Your task to perform on an android device: turn on the 12-hour format for clock Image 0: 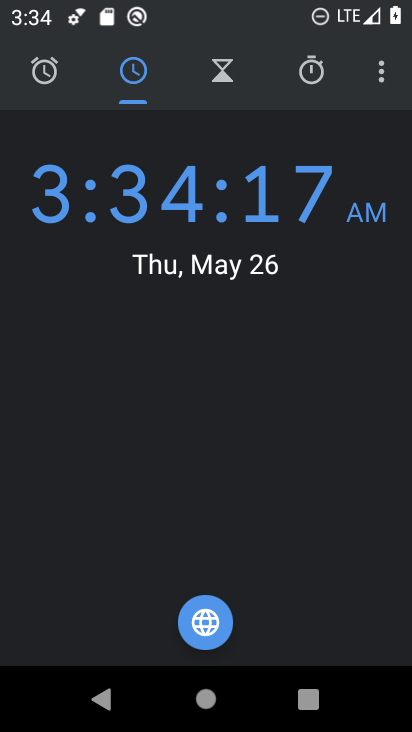
Step 0: press home button
Your task to perform on an android device: turn on the 12-hour format for clock Image 1: 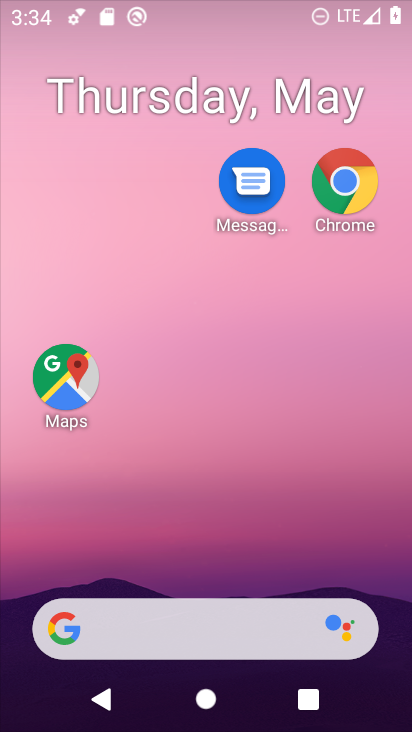
Step 1: drag from (290, 430) to (279, 64)
Your task to perform on an android device: turn on the 12-hour format for clock Image 2: 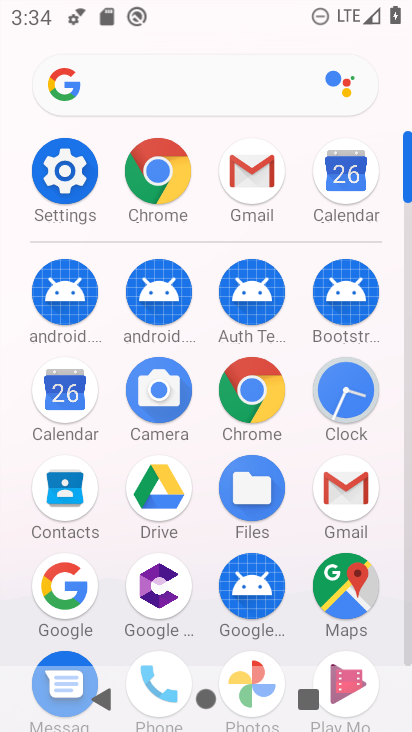
Step 2: drag from (223, 510) to (265, 340)
Your task to perform on an android device: turn on the 12-hour format for clock Image 3: 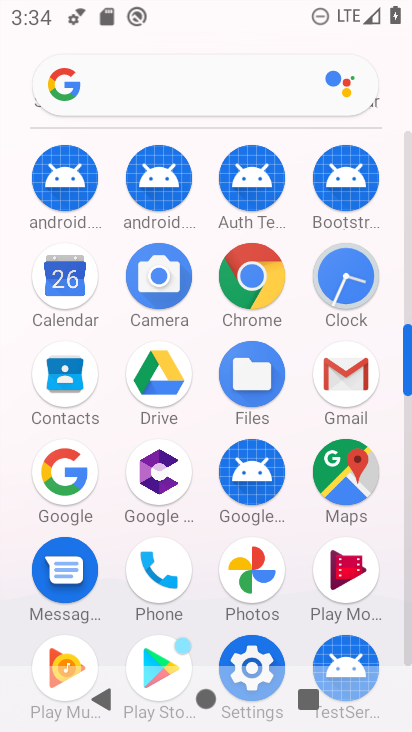
Step 3: click (353, 278)
Your task to perform on an android device: turn on the 12-hour format for clock Image 4: 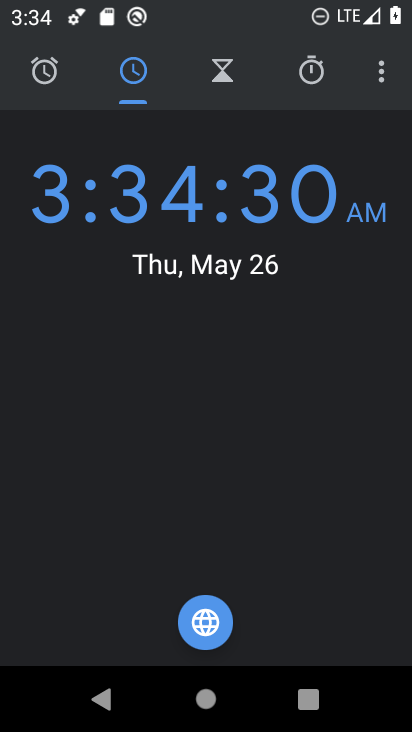
Step 4: click (377, 82)
Your task to perform on an android device: turn on the 12-hour format for clock Image 5: 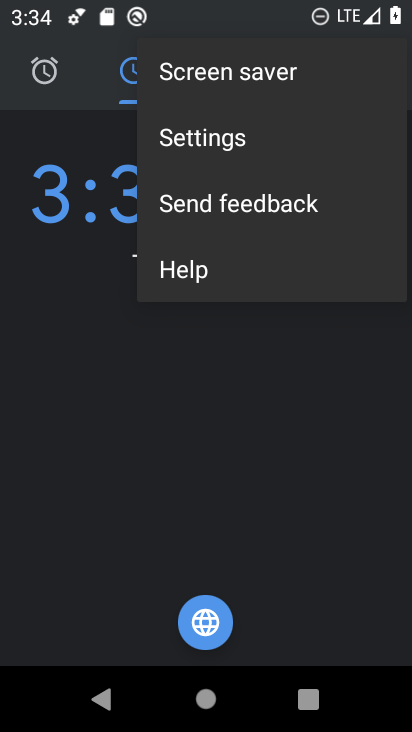
Step 5: click (215, 135)
Your task to perform on an android device: turn on the 12-hour format for clock Image 6: 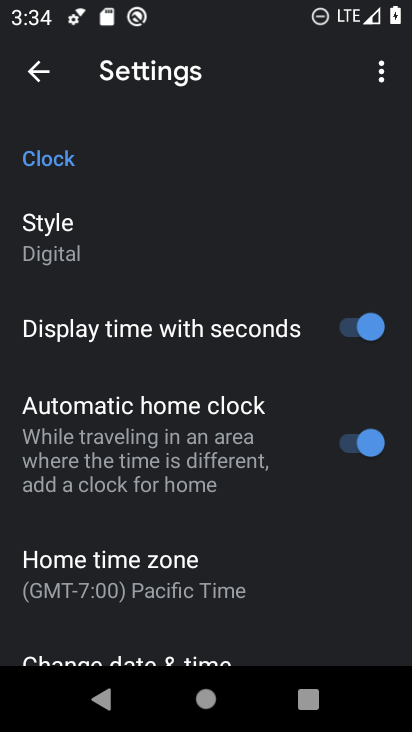
Step 6: drag from (296, 545) to (301, 188)
Your task to perform on an android device: turn on the 12-hour format for clock Image 7: 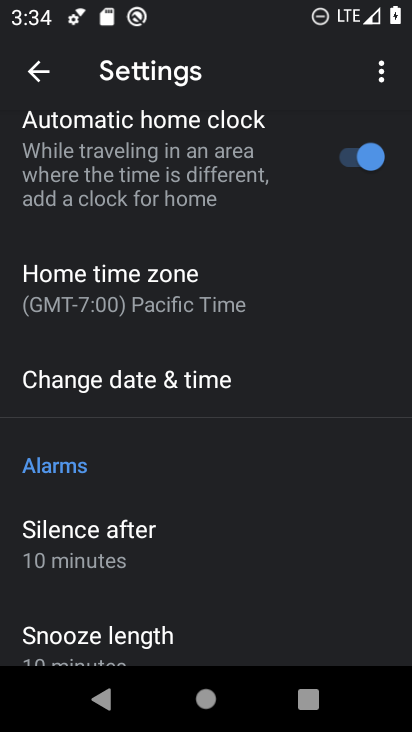
Step 7: drag from (244, 450) to (257, 207)
Your task to perform on an android device: turn on the 12-hour format for clock Image 8: 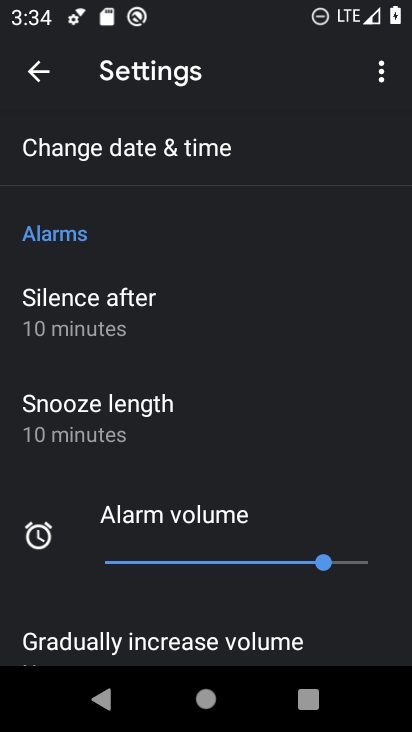
Step 8: drag from (253, 455) to (261, 209)
Your task to perform on an android device: turn on the 12-hour format for clock Image 9: 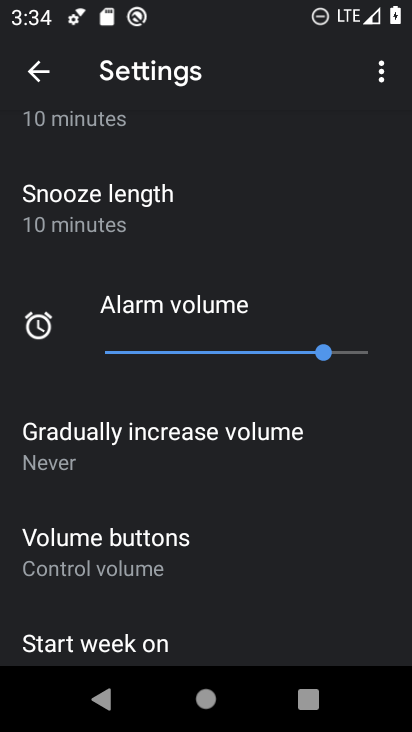
Step 9: drag from (248, 452) to (286, 187)
Your task to perform on an android device: turn on the 12-hour format for clock Image 10: 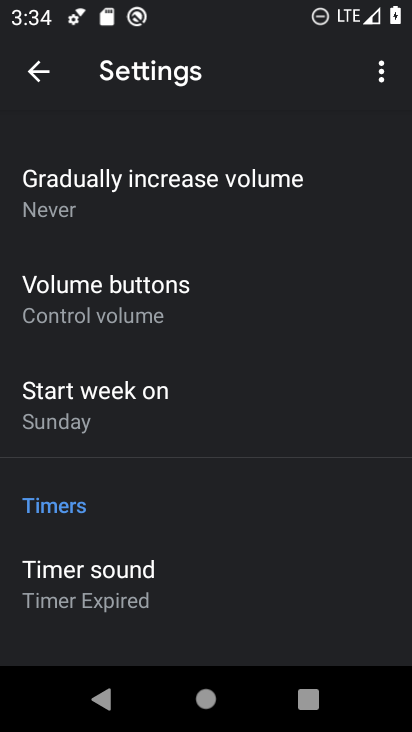
Step 10: drag from (274, 463) to (280, 241)
Your task to perform on an android device: turn on the 12-hour format for clock Image 11: 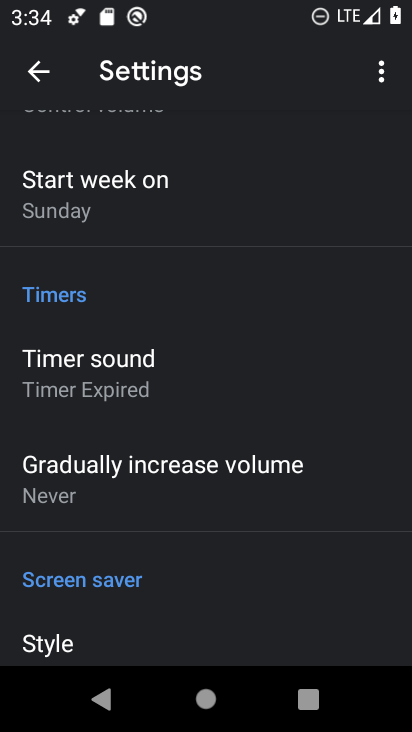
Step 11: drag from (293, 513) to (283, 168)
Your task to perform on an android device: turn on the 12-hour format for clock Image 12: 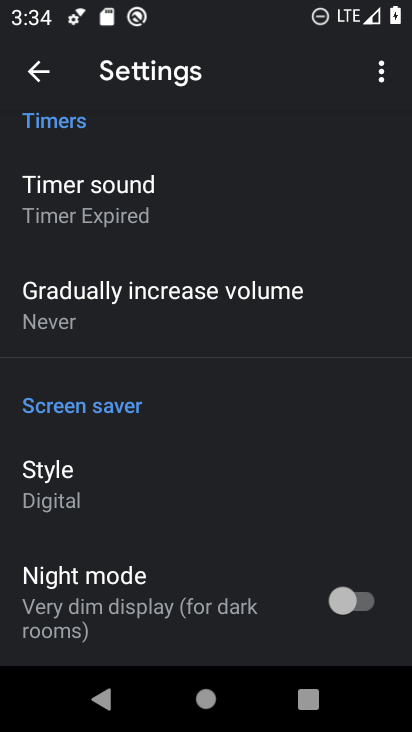
Step 12: drag from (271, 171) to (259, 597)
Your task to perform on an android device: turn on the 12-hour format for clock Image 13: 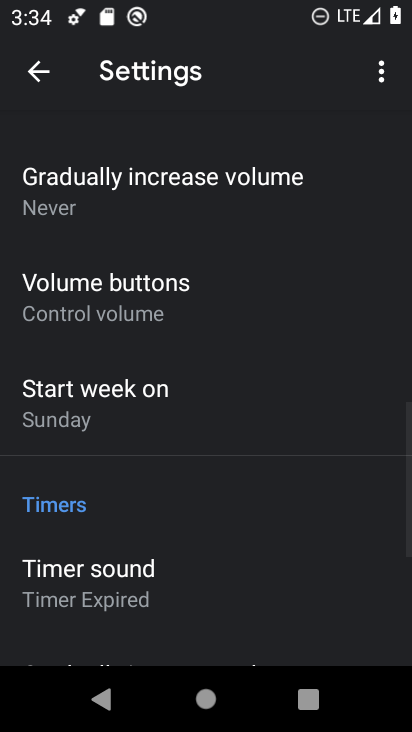
Step 13: drag from (275, 191) to (261, 500)
Your task to perform on an android device: turn on the 12-hour format for clock Image 14: 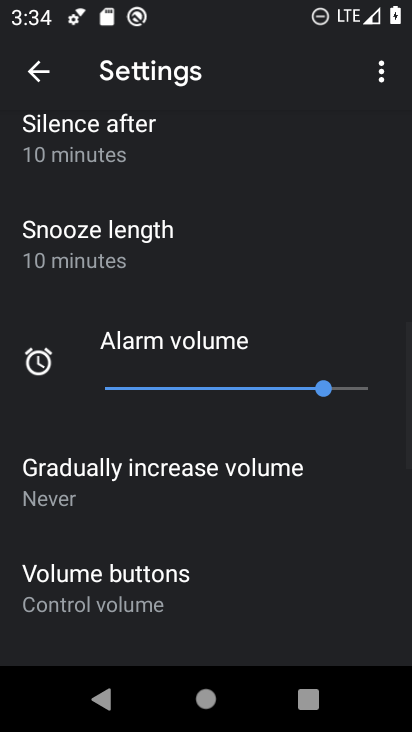
Step 14: drag from (223, 174) to (218, 420)
Your task to perform on an android device: turn on the 12-hour format for clock Image 15: 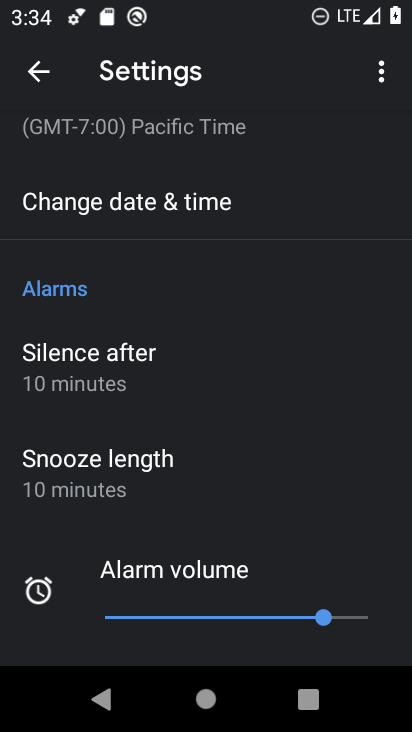
Step 15: drag from (226, 176) to (233, 372)
Your task to perform on an android device: turn on the 12-hour format for clock Image 16: 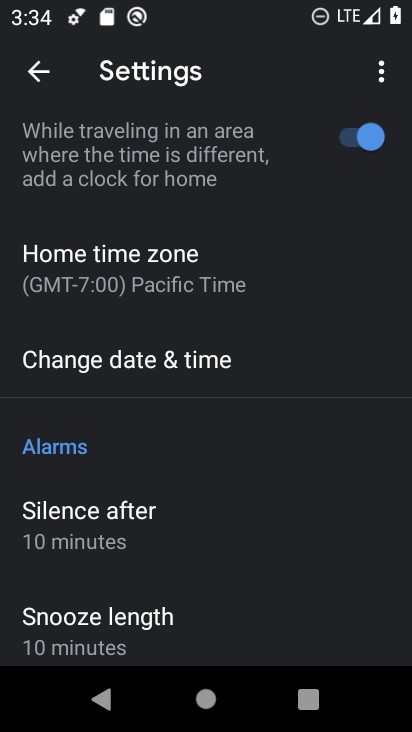
Step 16: click (200, 360)
Your task to perform on an android device: turn on the 12-hour format for clock Image 17: 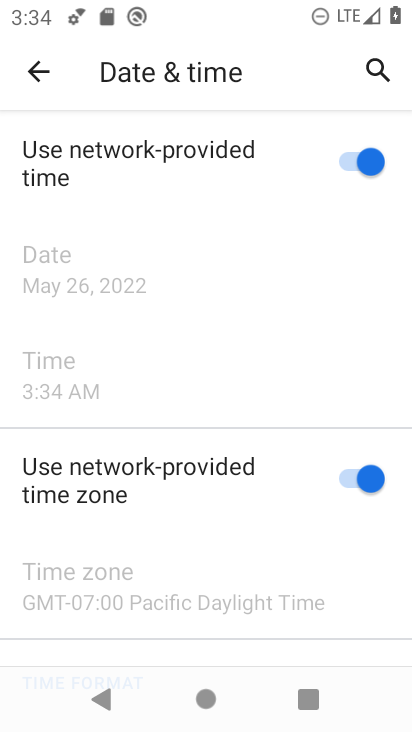
Step 17: drag from (212, 365) to (245, 113)
Your task to perform on an android device: turn on the 12-hour format for clock Image 18: 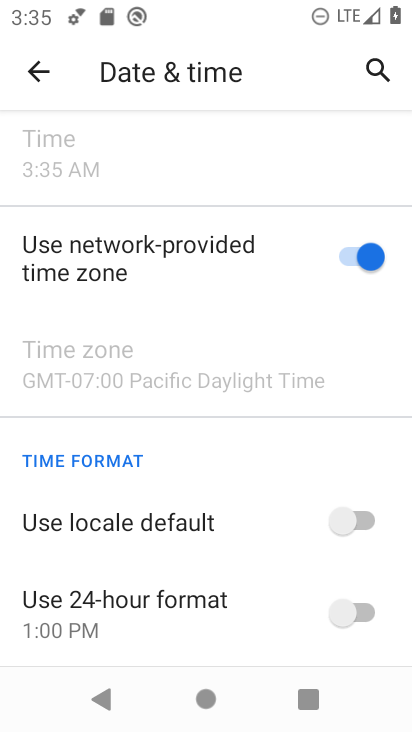
Step 18: click (352, 617)
Your task to perform on an android device: turn on the 12-hour format for clock Image 19: 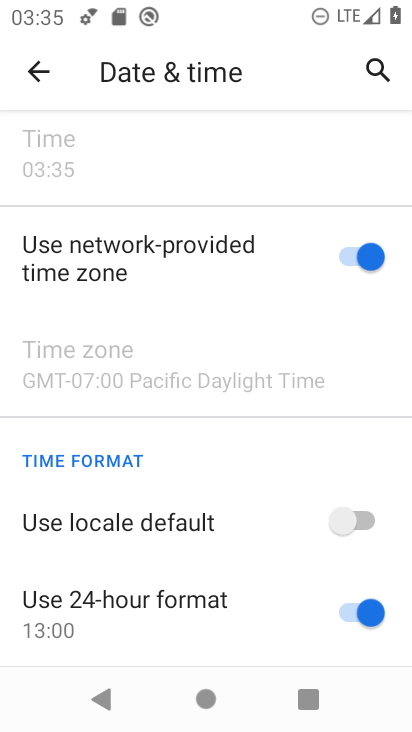
Step 19: click (354, 612)
Your task to perform on an android device: turn on the 12-hour format for clock Image 20: 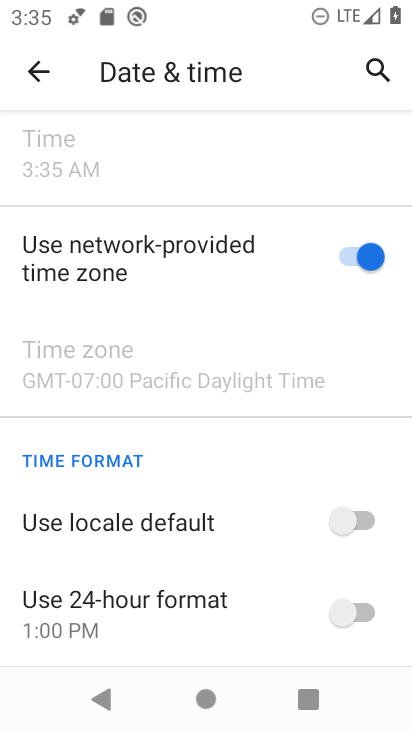
Step 20: drag from (296, 187) to (260, 511)
Your task to perform on an android device: turn on the 12-hour format for clock Image 21: 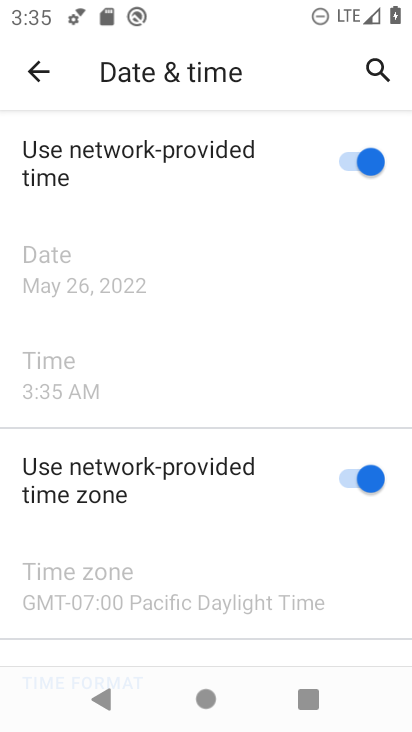
Step 21: drag from (273, 285) to (252, 477)
Your task to perform on an android device: turn on the 12-hour format for clock Image 22: 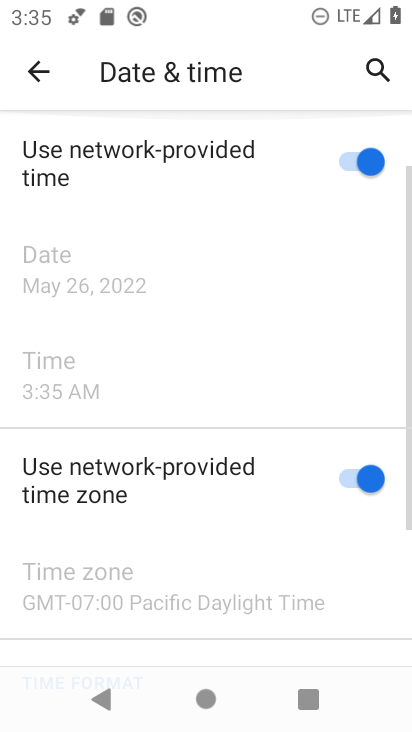
Step 22: drag from (257, 541) to (221, 266)
Your task to perform on an android device: turn on the 12-hour format for clock Image 23: 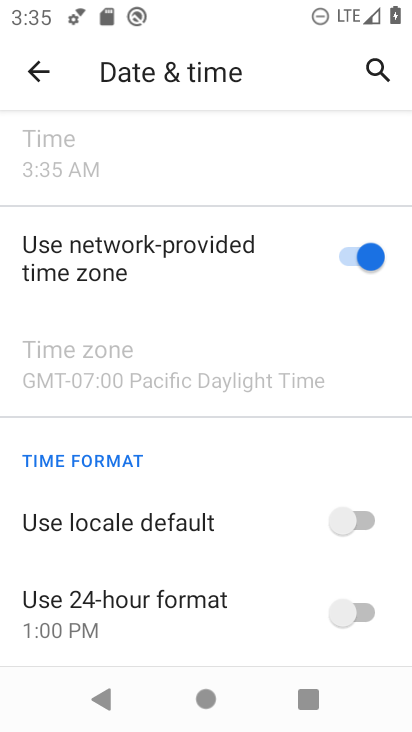
Step 23: click (352, 521)
Your task to perform on an android device: turn on the 12-hour format for clock Image 24: 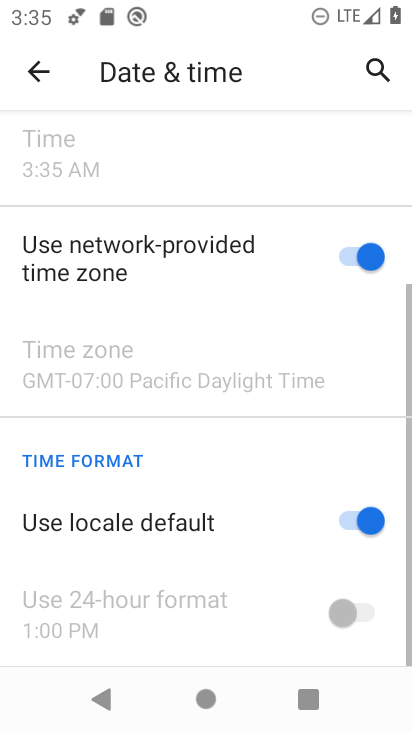
Step 24: click (363, 526)
Your task to perform on an android device: turn on the 12-hour format for clock Image 25: 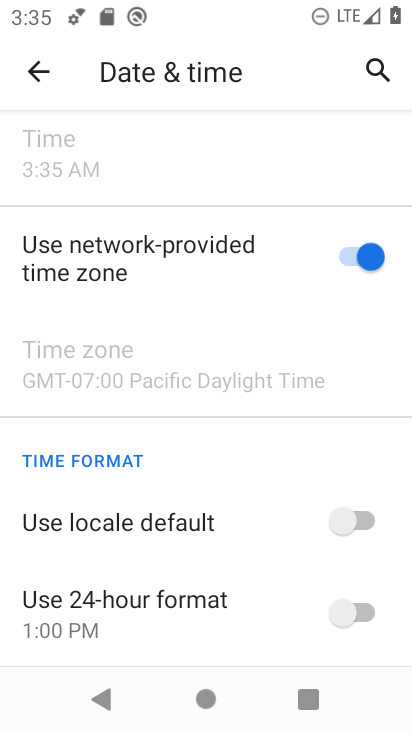
Step 25: drag from (292, 556) to (286, 239)
Your task to perform on an android device: turn on the 12-hour format for clock Image 26: 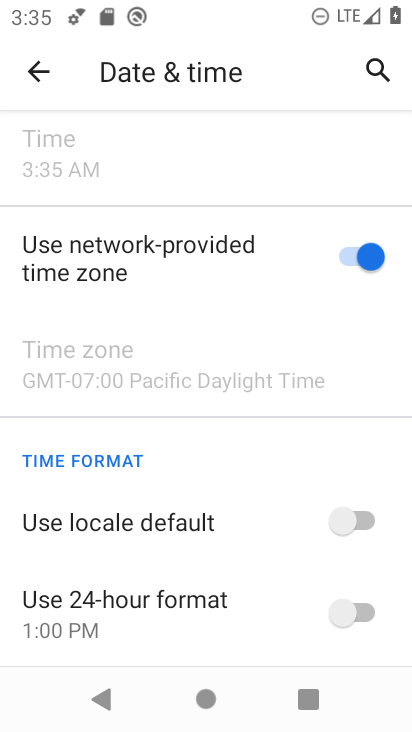
Step 26: drag from (262, 491) to (243, 137)
Your task to perform on an android device: turn on the 12-hour format for clock Image 27: 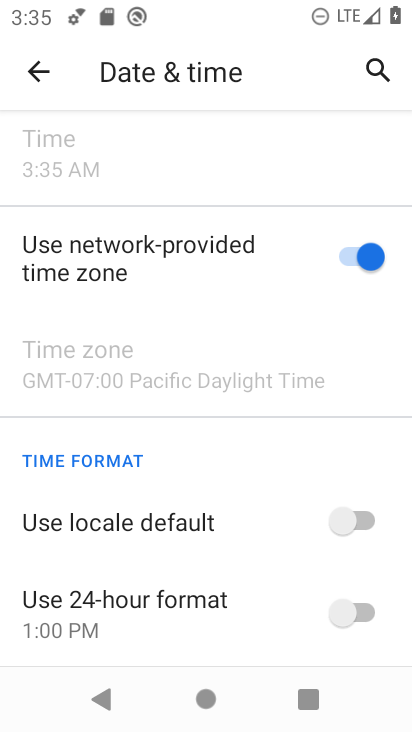
Step 27: drag from (243, 136) to (180, 601)
Your task to perform on an android device: turn on the 12-hour format for clock Image 28: 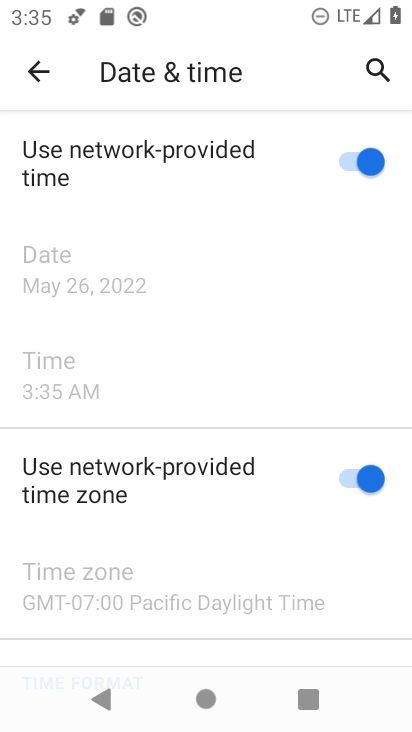
Step 28: drag from (230, 320) to (237, 570)
Your task to perform on an android device: turn on the 12-hour format for clock Image 29: 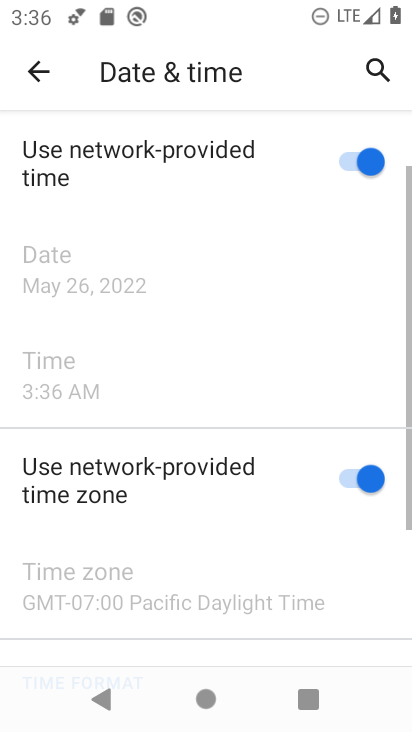
Step 29: drag from (229, 569) to (280, 126)
Your task to perform on an android device: turn on the 12-hour format for clock Image 30: 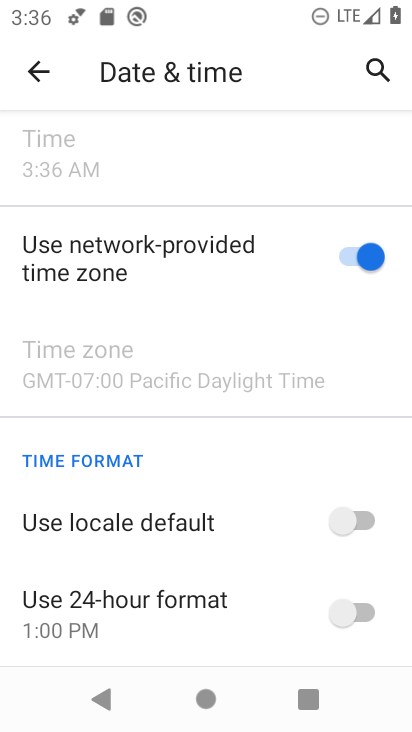
Step 30: click (381, 64)
Your task to perform on an android device: turn on the 12-hour format for clock Image 31: 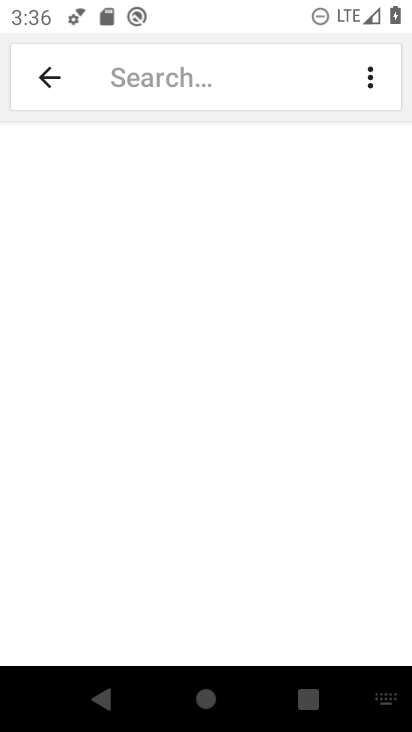
Step 31: type "12 hour format"
Your task to perform on an android device: turn on the 12-hour format for clock Image 32: 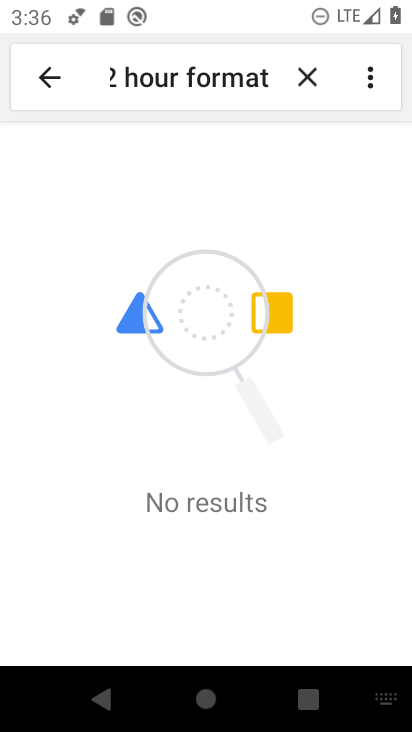
Step 32: click (300, 74)
Your task to perform on an android device: turn on the 12-hour format for clock Image 33: 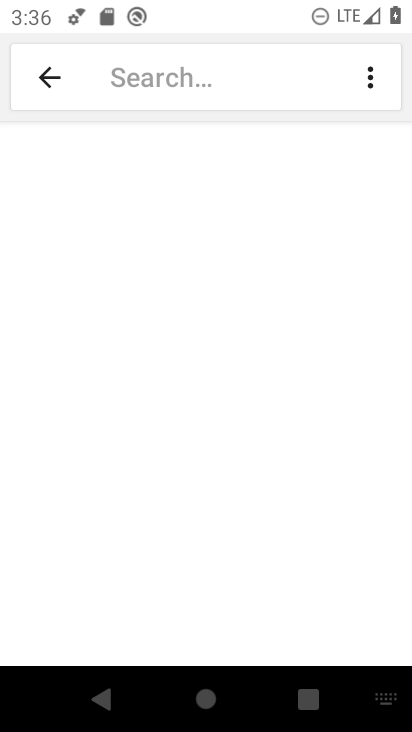
Step 33: click (47, 72)
Your task to perform on an android device: turn on the 12-hour format for clock Image 34: 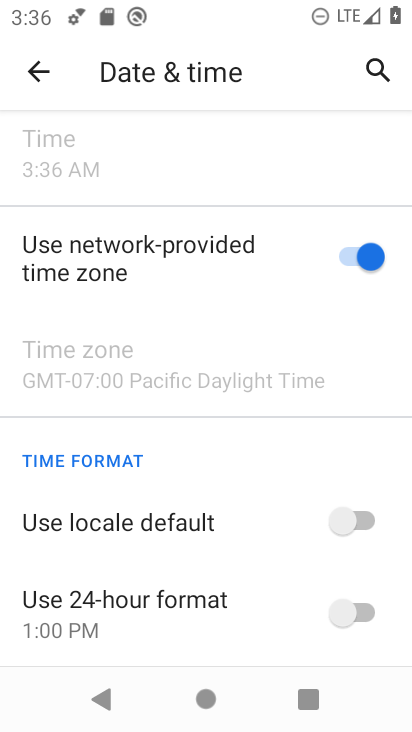
Step 34: task complete